Your task to perform on an android device: Go to accessibility settings Image 0: 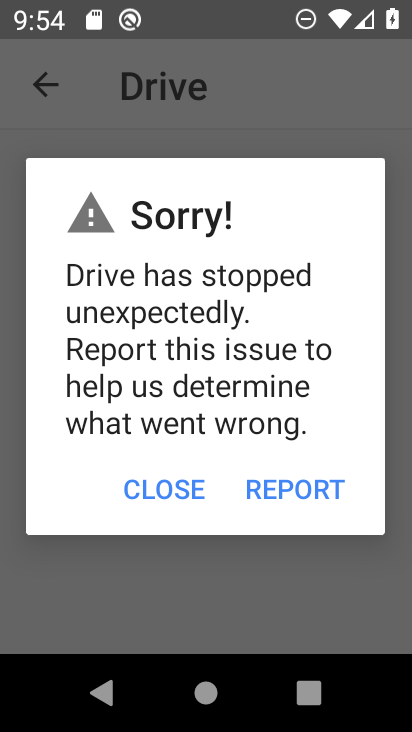
Step 0: press home button
Your task to perform on an android device: Go to accessibility settings Image 1: 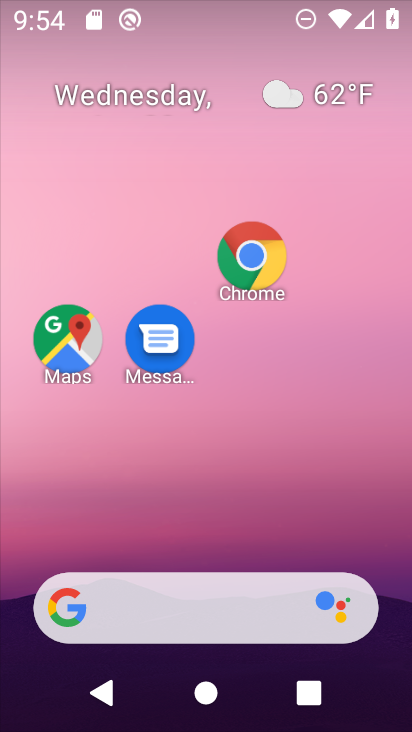
Step 1: drag from (224, 442) to (214, 14)
Your task to perform on an android device: Go to accessibility settings Image 2: 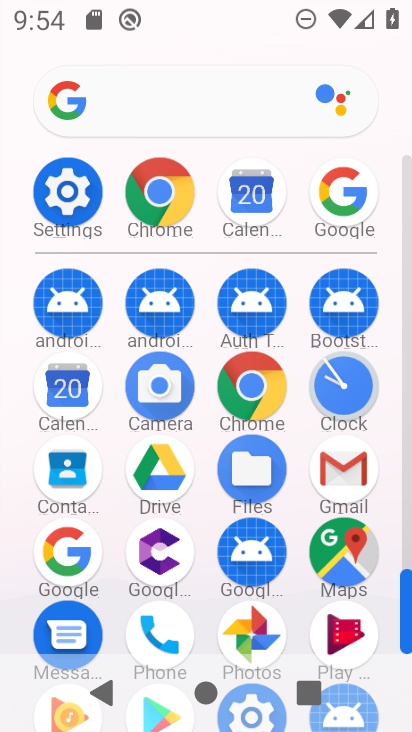
Step 2: click (62, 194)
Your task to perform on an android device: Go to accessibility settings Image 3: 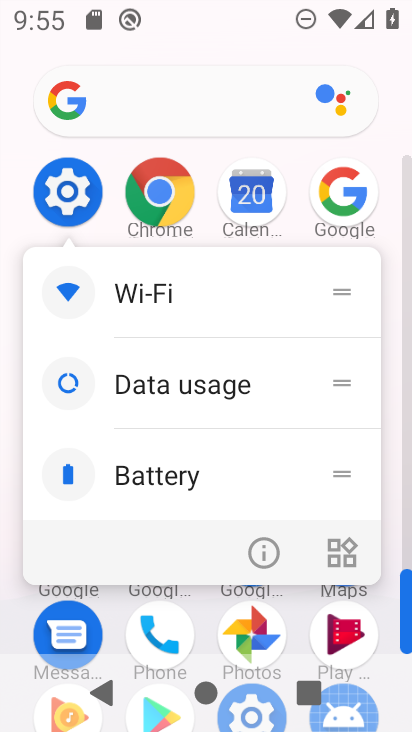
Step 3: click (74, 200)
Your task to perform on an android device: Go to accessibility settings Image 4: 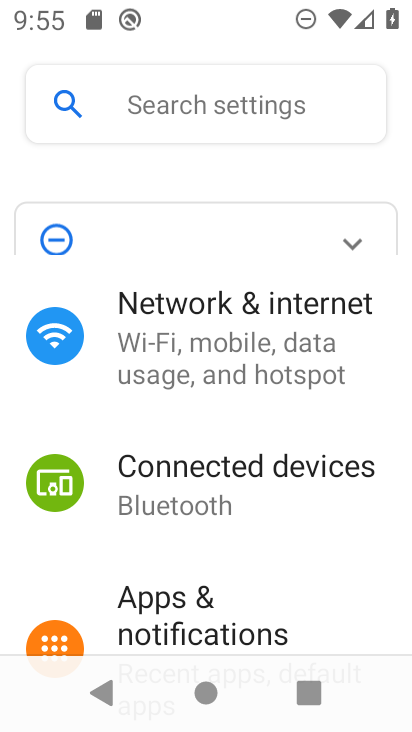
Step 4: drag from (172, 556) to (178, 43)
Your task to perform on an android device: Go to accessibility settings Image 5: 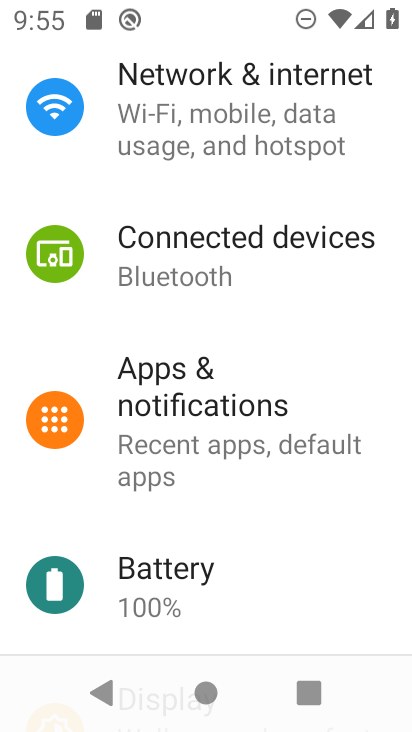
Step 5: drag from (199, 595) to (202, 2)
Your task to perform on an android device: Go to accessibility settings Image 6: 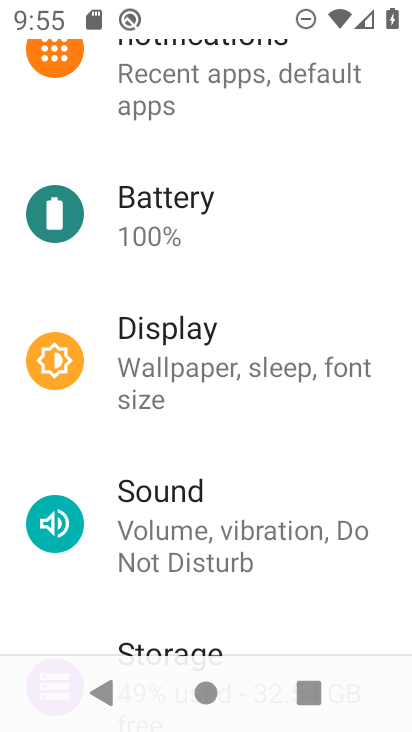
Step 6: drag from (210, 593) to (201, 1)
Your task to perform on an android device: Go to accessibility settings Image 7: 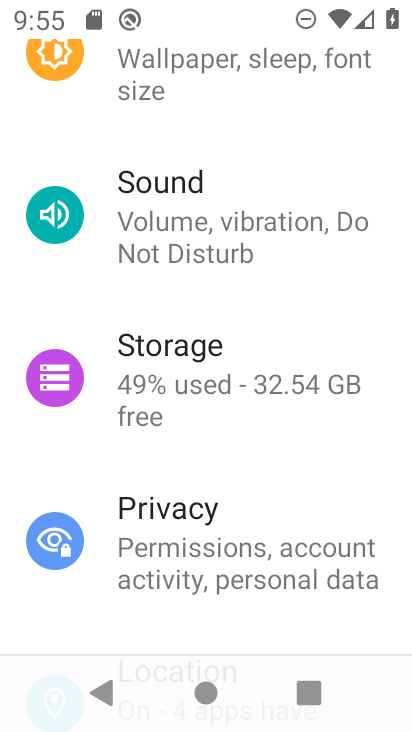
Step 7: drag from (201, 597) to (217, 148)
Your task to perform on an android device: Go to accessibility settings Image 8: 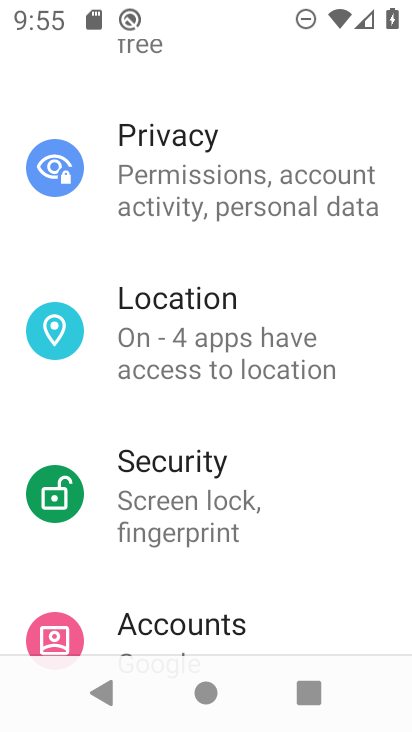
Step 8: drag from (222, 543) to (259, 70)
Your task to perform on an android device: Go to accessibility settings Image 9: 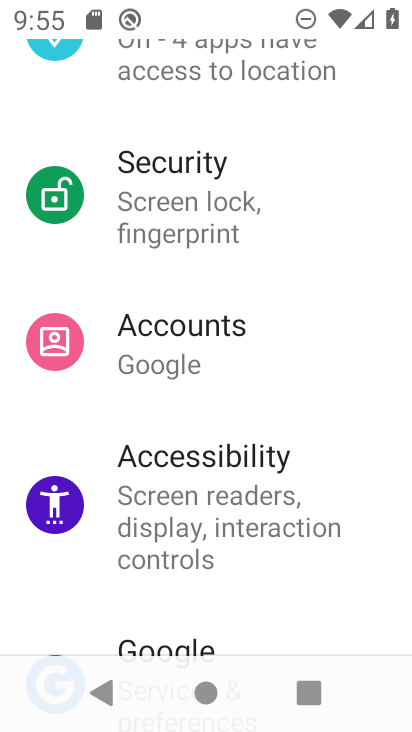
Step 9: click (196, 477)
Your task to perform on an android device: Go to accessibility settings Image 10: 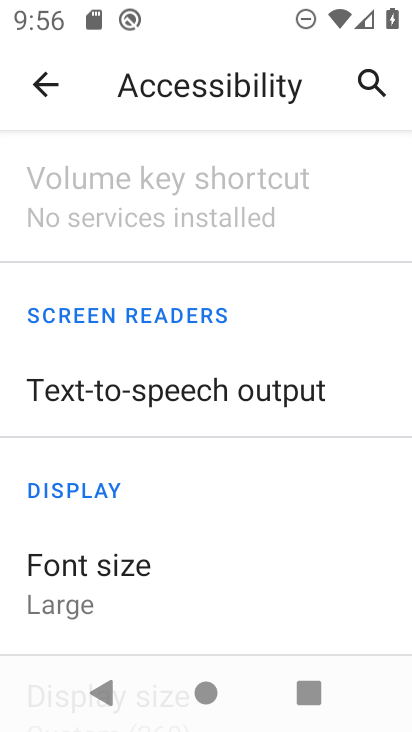
Step 10: task complete